Your task to perform on an android device: Open calendar and show me the first week of next month Image 0: 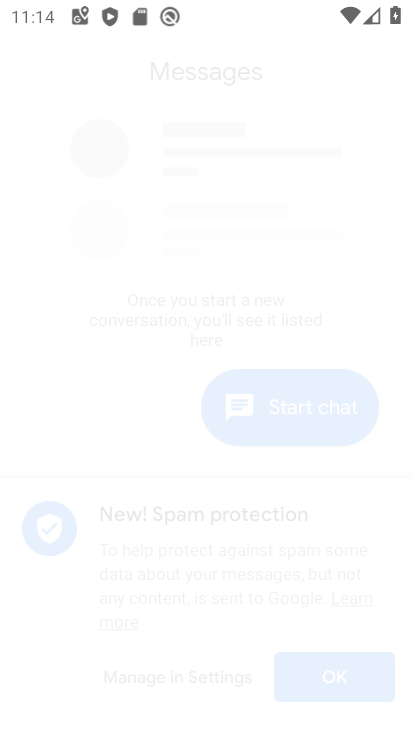
Step 0: drag from (206, 722) to (215, 131)
Your task to perform on an android device: Open calendar and show me the first week of next month Image 1: 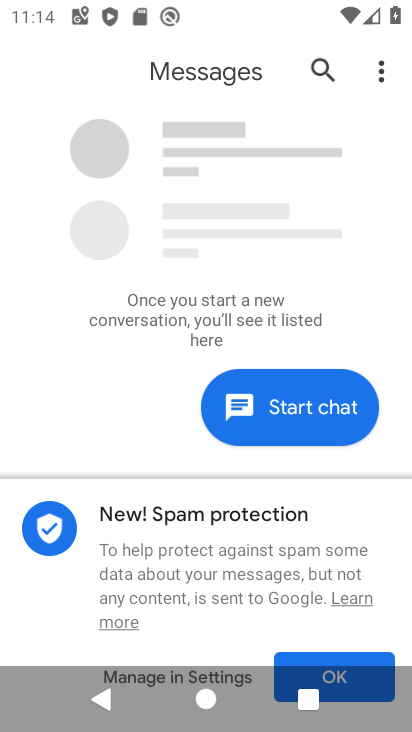
Step 1: press home button
Your task to perform on an android device: Open calendar and show me the first week of next month Image 2: 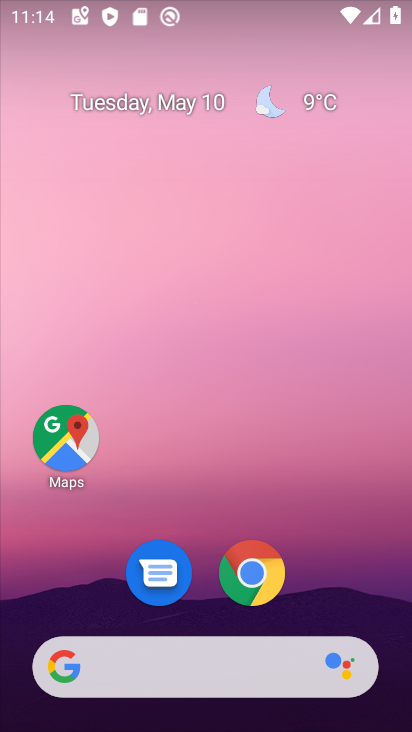
Step 2: drag from (214, 722) to (210, 127)
Your task to perform on an android device: Open calendar and show me the first week of next month Image 3: 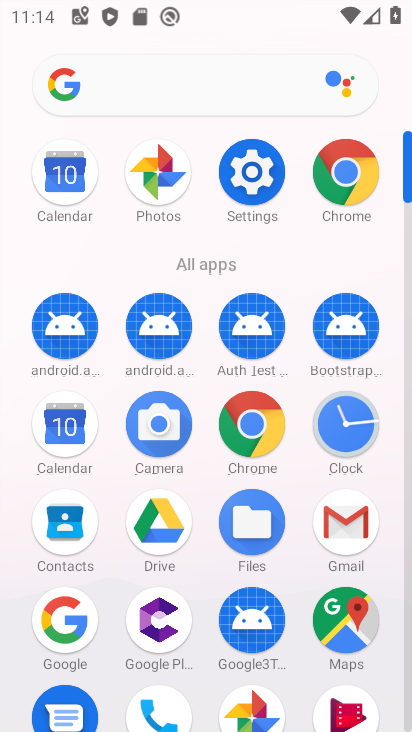
Step 3: click (59, 435)
Your task to perform on an android device: Open calendar and show me the first week of next month Image 4: 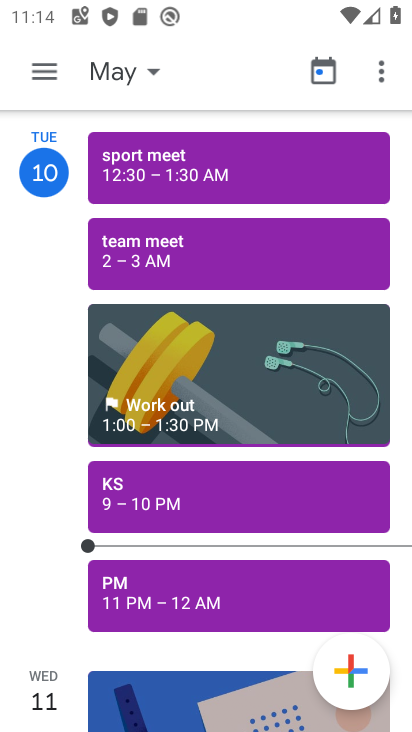
Step 4: click (40, 73)
Your task to perform on an android device: Open calendar and show me the first week of next month Image 5: 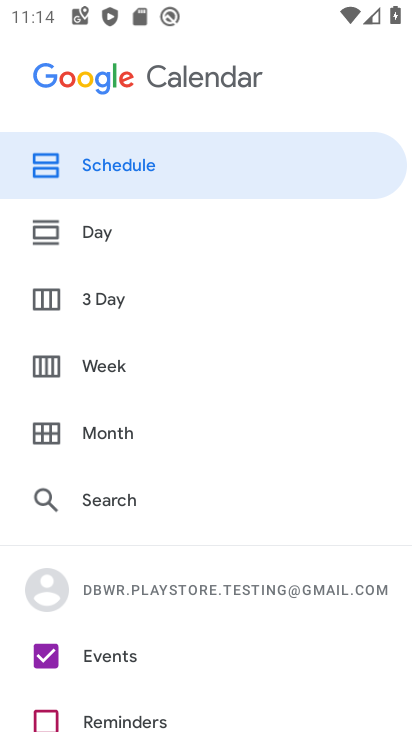
Step 5: click (105, 361)
Your task to perform on an android device: Open calendar and show me the first week of next month Image 6: 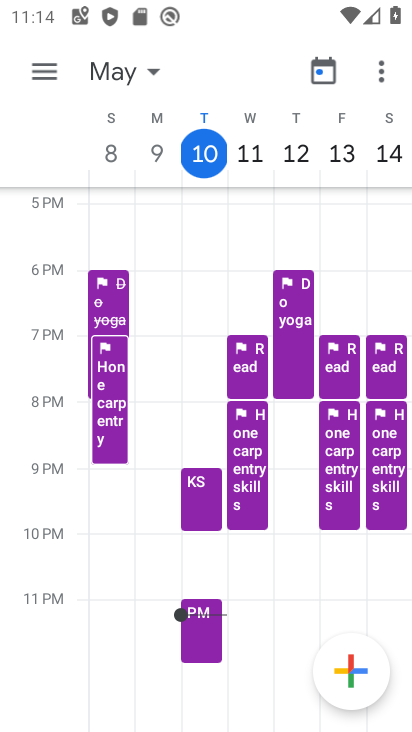
Step 6: drag from (344, 151) to (29, 114)
Your task to perform on an android device: Open calendar and show me the first week of next month Image 7: 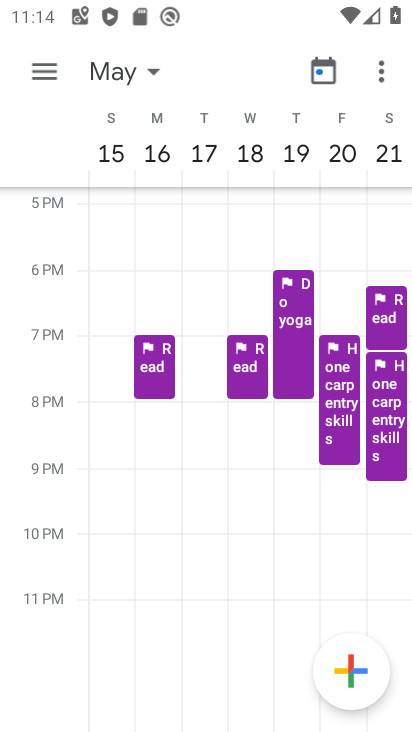
Step 7: drag from (382, 141) to (0, 98)
Your task to perform on an android device: Open calendar and show me the first week of next month Image 8: 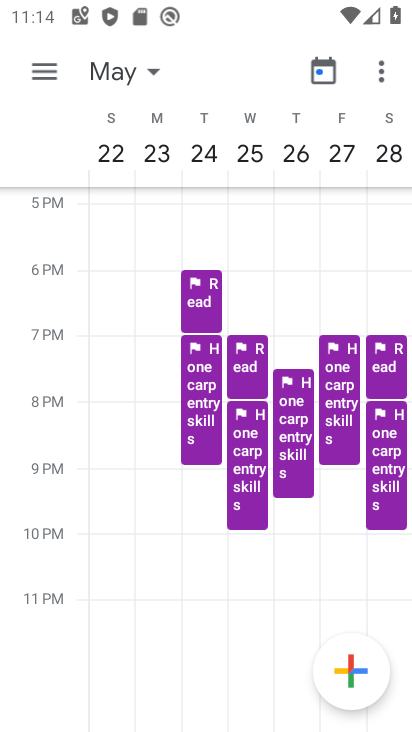
Step 8: drag from (369, 153) to (23, 116)
Your task to perform on an android device: Open calendar and show me the first week of next month Image 9: 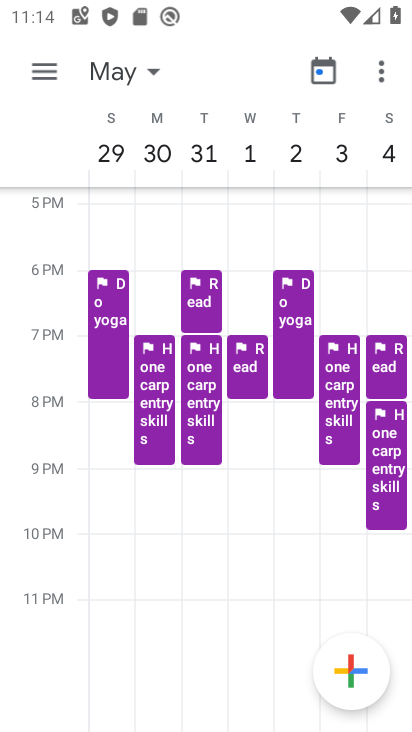
Step 9: drag from (380, 144) to (2, 136)
Your task to perform on an android device: Open calendar and show me the first week of next month Image 10: 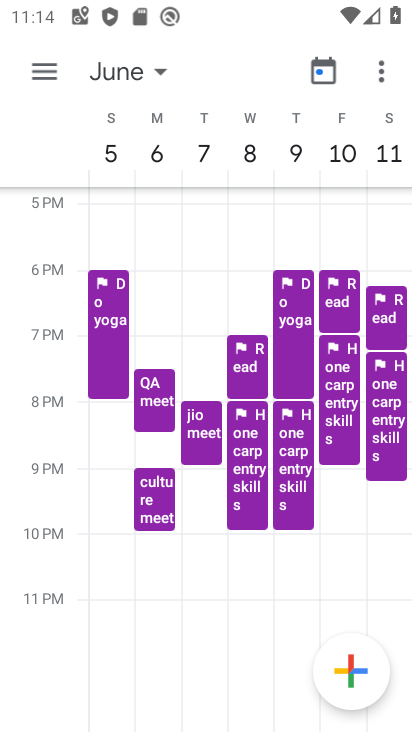
Step 10: click (158, 145)
Your task to perform on an android device: Open calendar and show me the first week of next month Image 11: 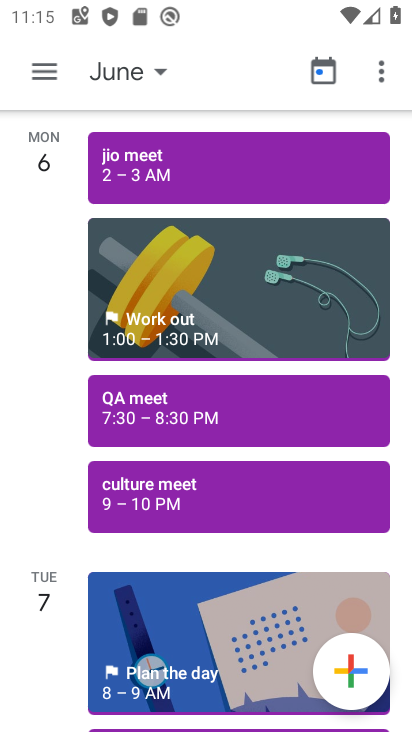
Step 11: task complete